Your task to perform on an android device: View the shopping cart on target. Add "usb-c" to the cart on target, then select checkout. Image 0: 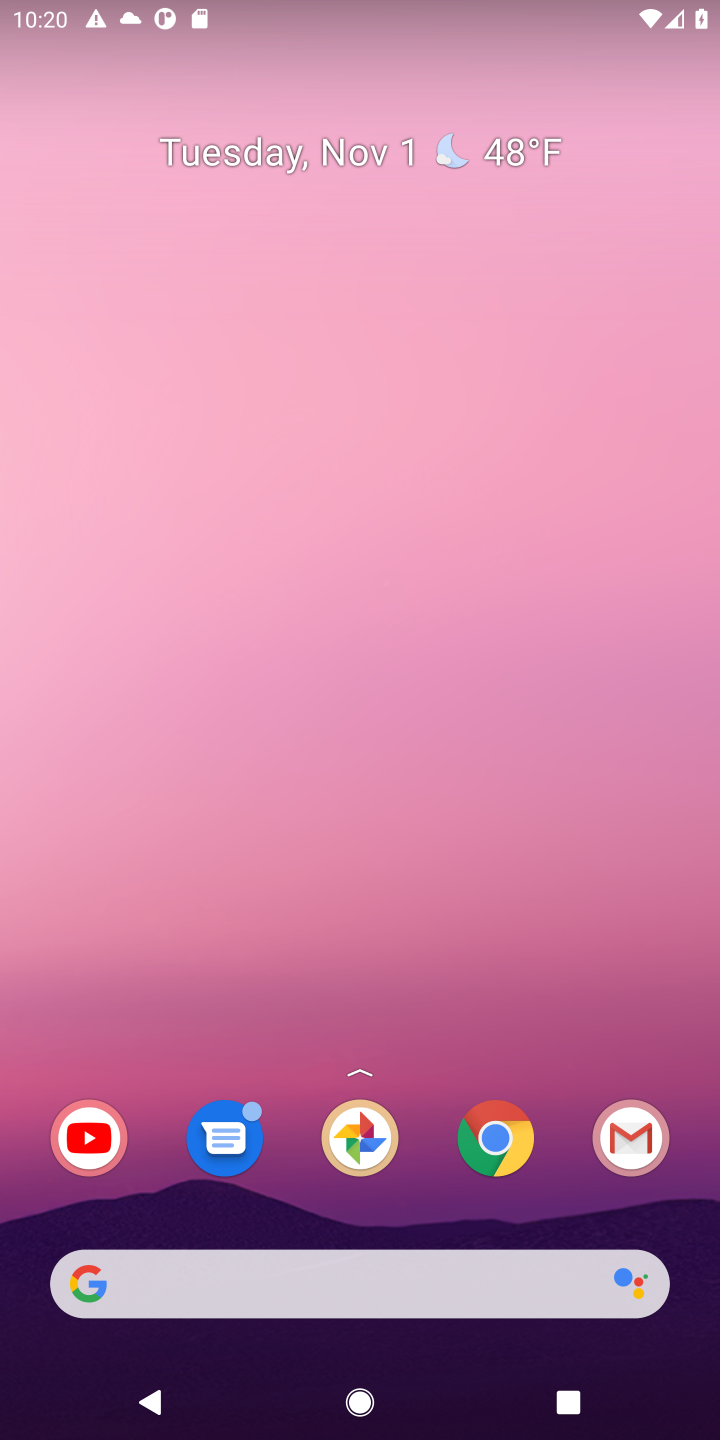
Step 0: drag from (440, 1088) to (486, 181)
Your task to perform on an android device: View the shopping cart on target. Add "usb-c" to the cart on target, then select checkout. Image 1: 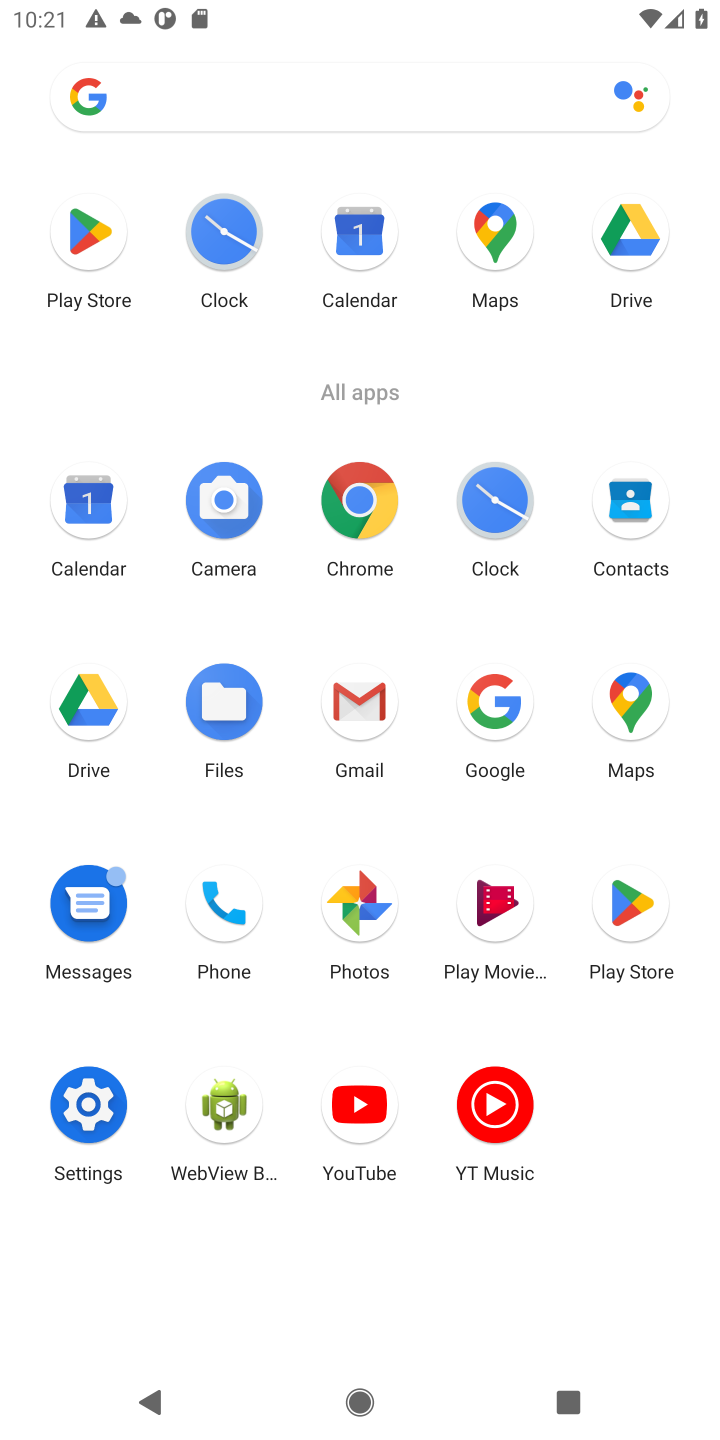
Step 1: click (354, 491)
Your task to perform on an android device: View the shopping cart on target. Add "usb-c" to the cart on target, then select checkout. Image 2: 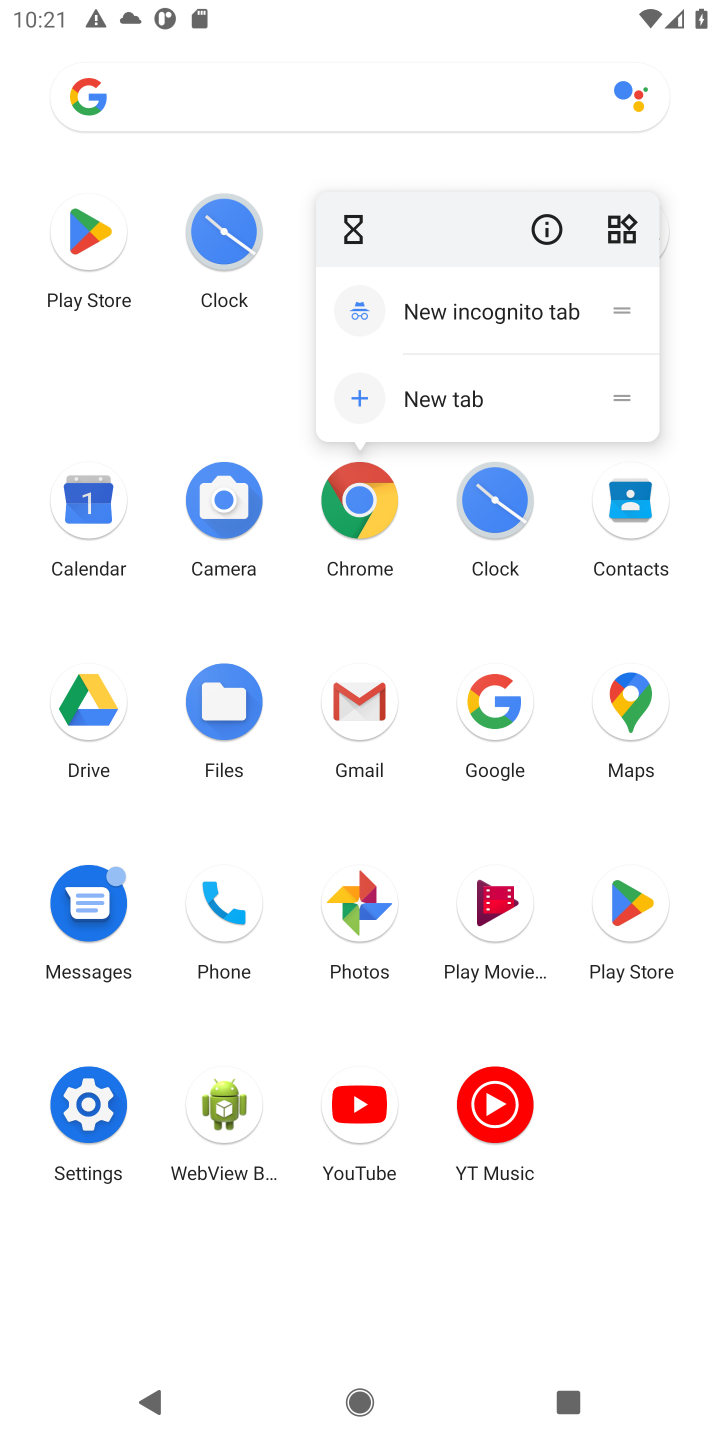
Step 2: click (352, 497)
Your task to perform on an android device: View the shopping cart on target. Add "usb-c" to the cart on target, then select checkout. Image 3: 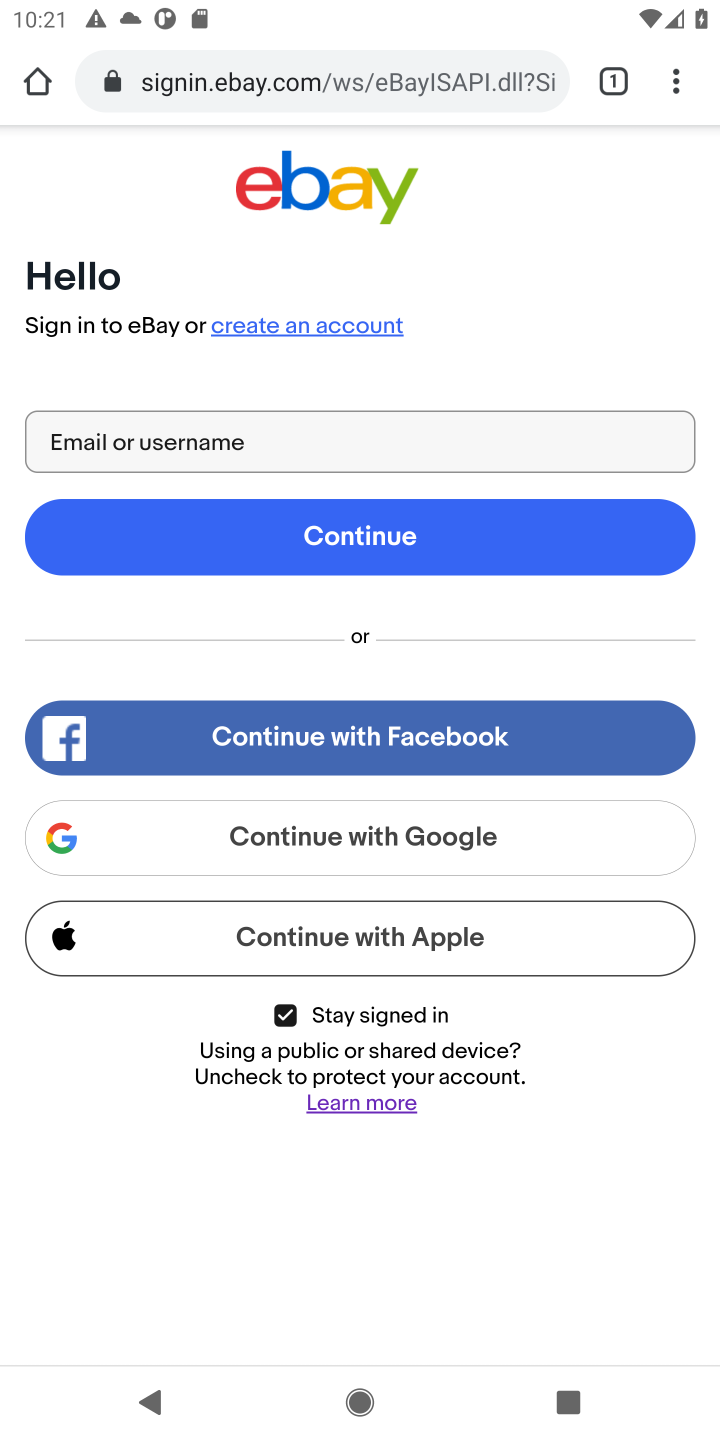
Step 3: click (183, 75)
Your task to perform on an android device: View the shopping cart on target. Add "usb-c" to the cart on target, then select checkout. Image 4: 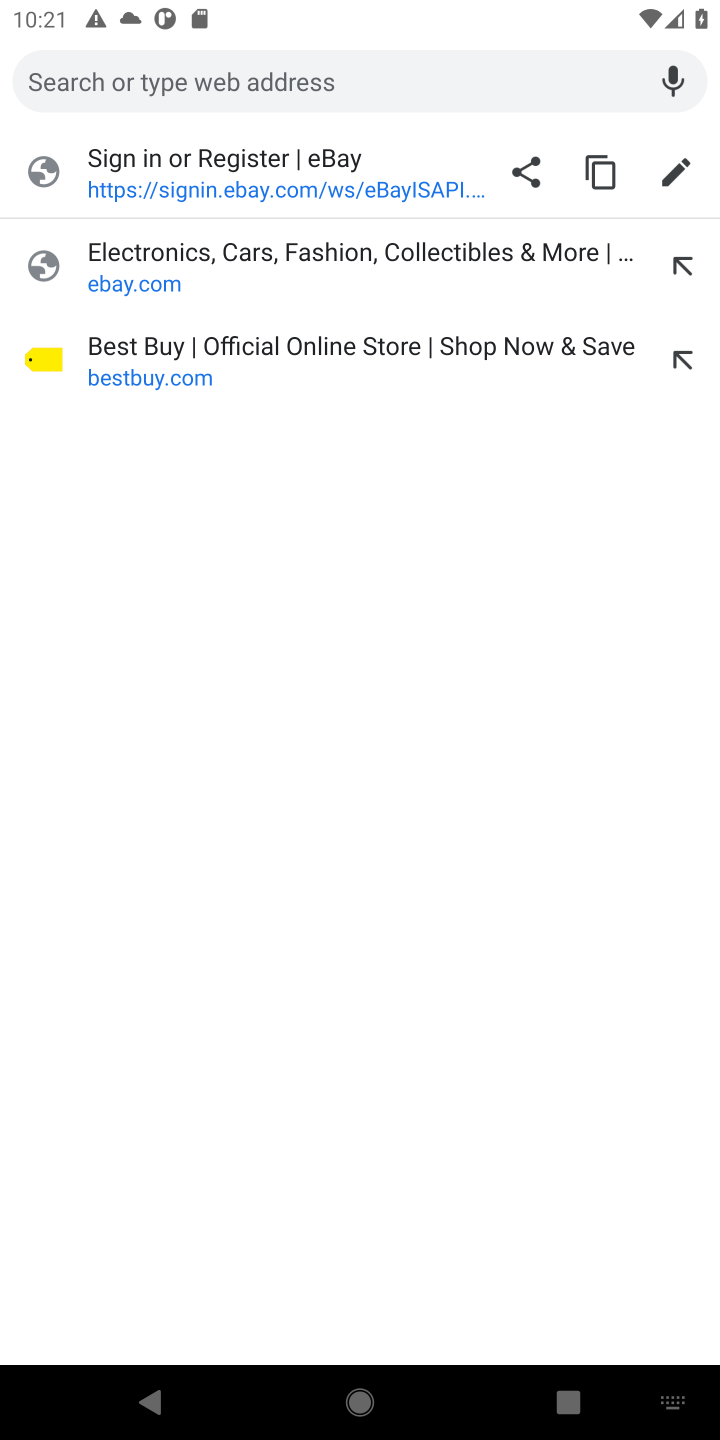
Step 4: type "target"
Your task to perform on an android device: View the shopping cart on target. Add "usb-c" to the cart on target, then select checkout. Image 5: 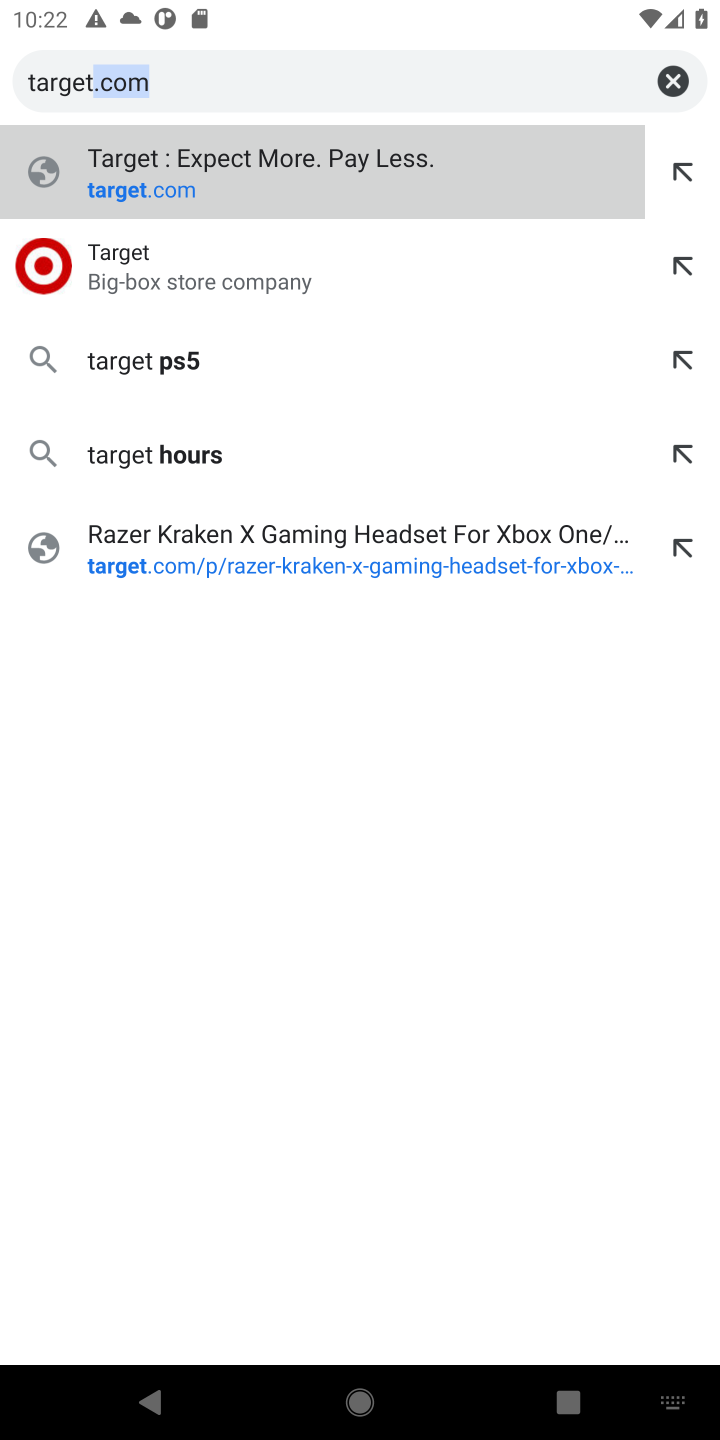
Step 5: click (220, 182)
Your task to perform on an android device: View the shopping cart on target. Add "usb-c" to the cart on target, then select checkout. Image 6: 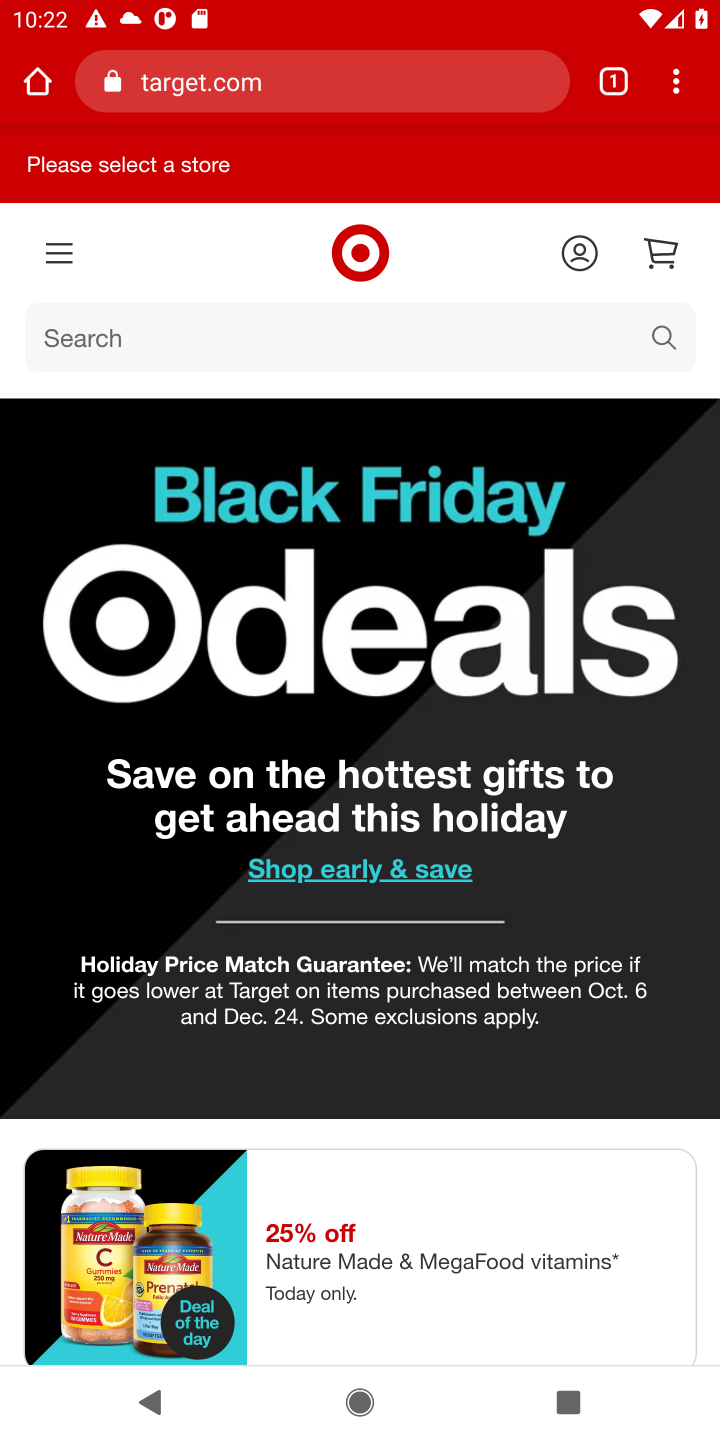
Step 6: click (92, 324)
Your task to perform on an android device: View the shopping cart on target. Add "usb-c" to the cart on target, then select checkout. Image 7: 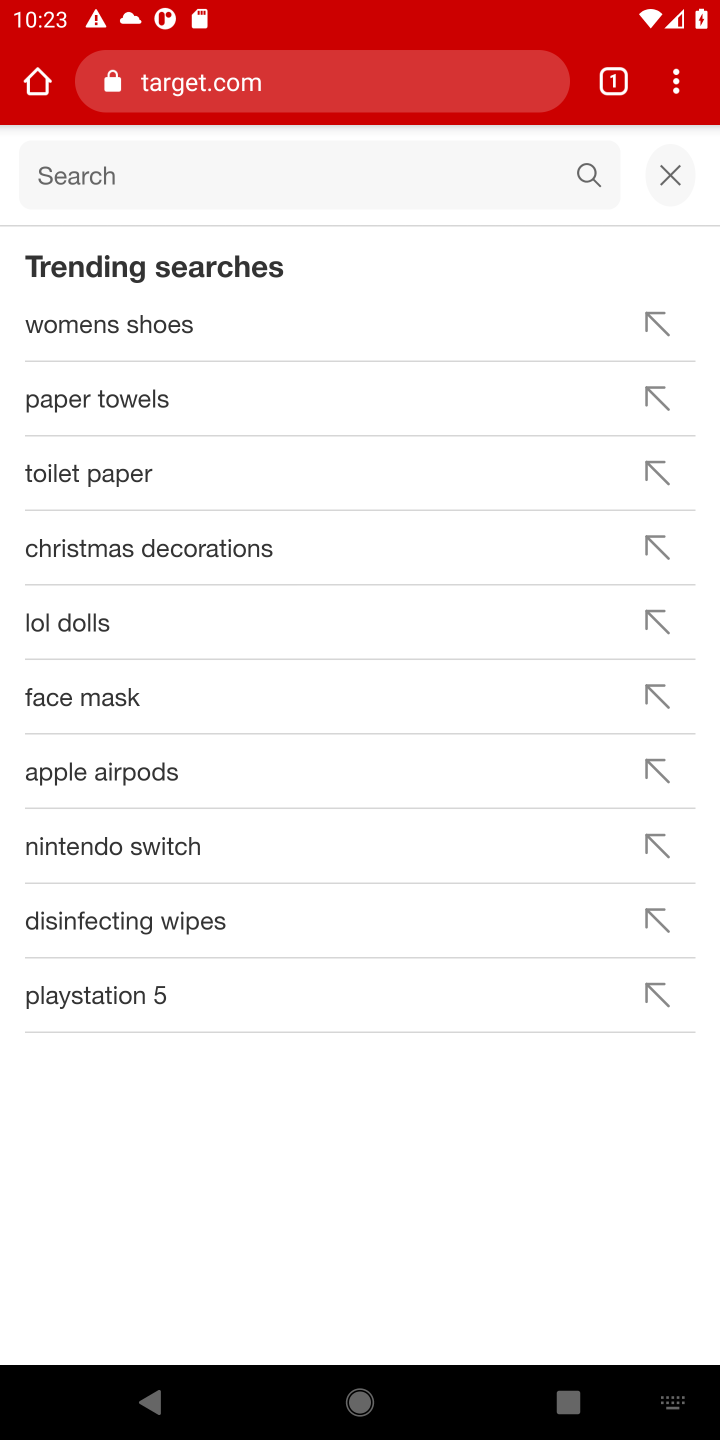
Step 7: type "usb-c"
Your task to perform on an android device: View the shopping cart on target. Add "usb-c" to the cart on target, then select checkout. Image 8: 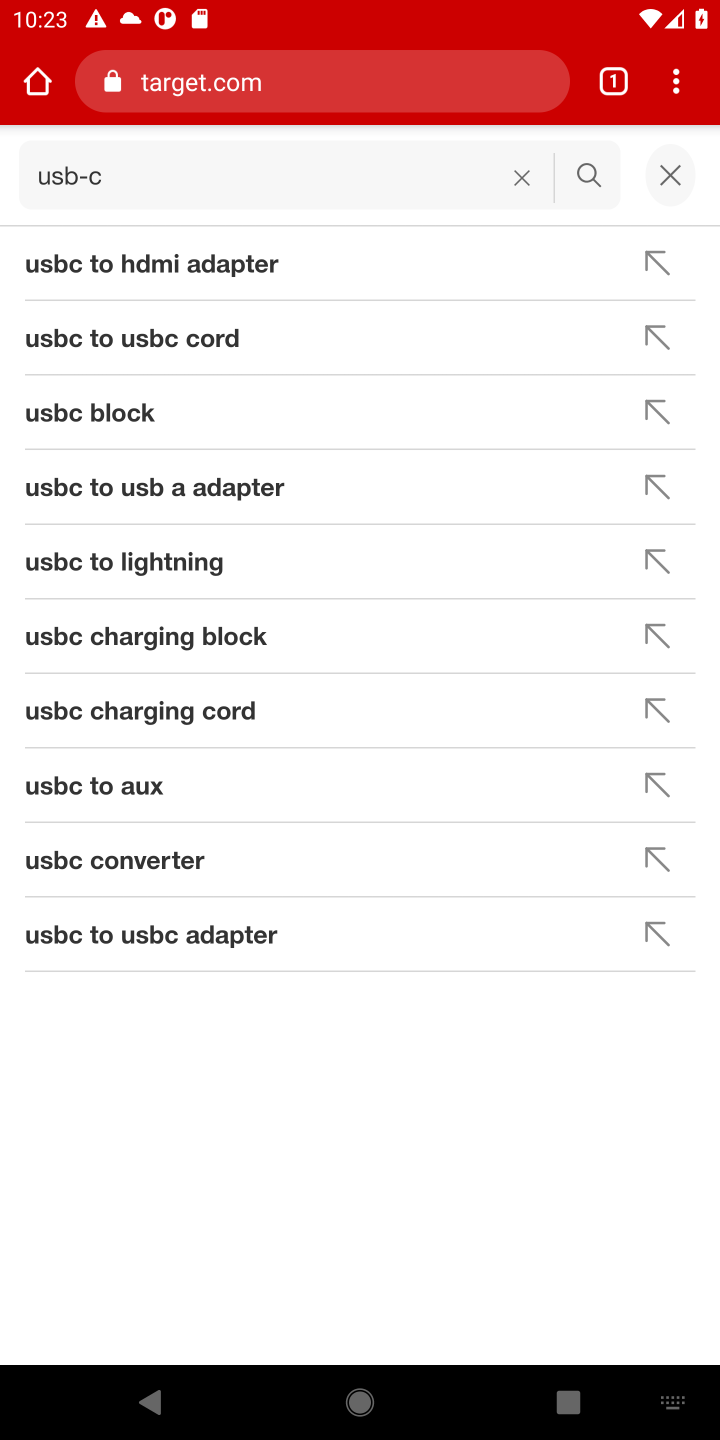
Step 8: click (151, 879)
Your task to perform on an android device: View the shopping cart on target. Add "usb-c" to the cart on target, then select checkout. Image 9: 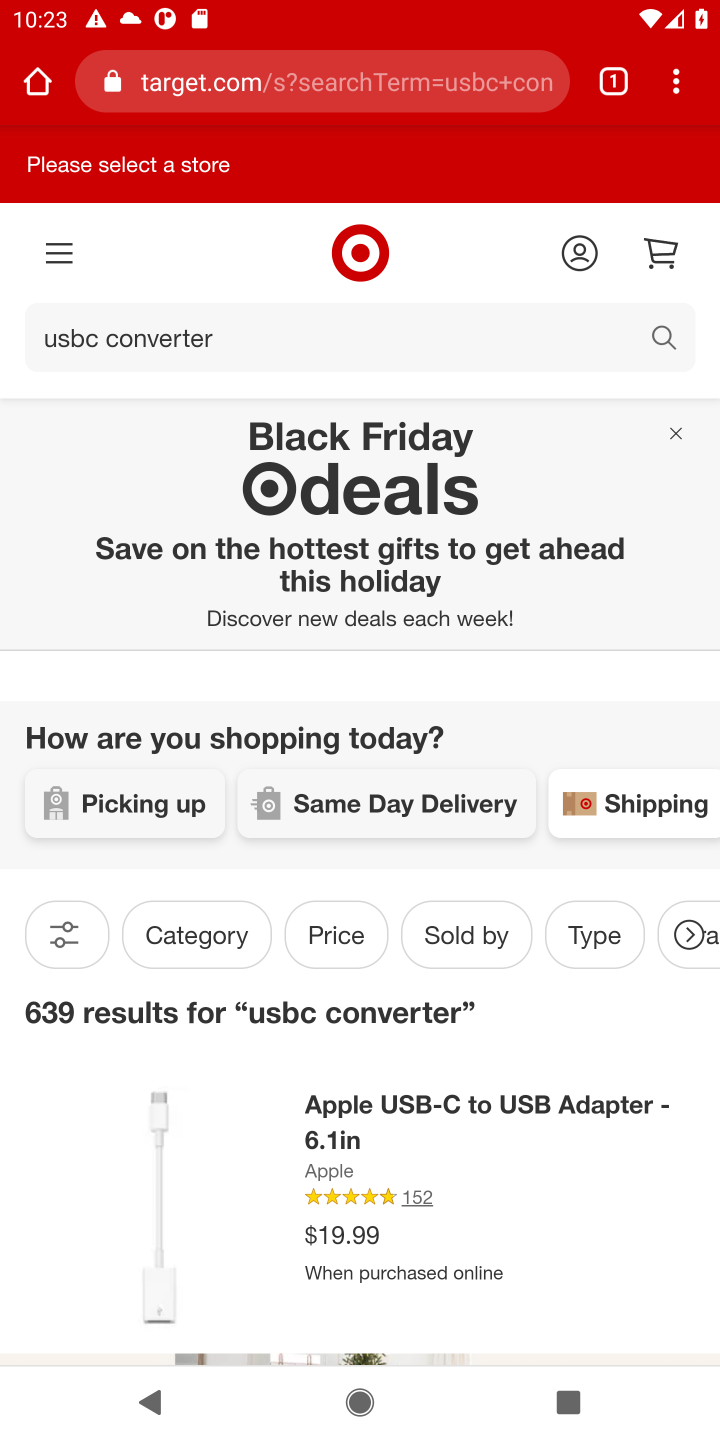
Step 9: drag from (300, 1075) to (409, 388)
Your task to perform on an android device: View the shopping cart on target. Add "usb-c" to the cart on target, then select checkout. Image 10: 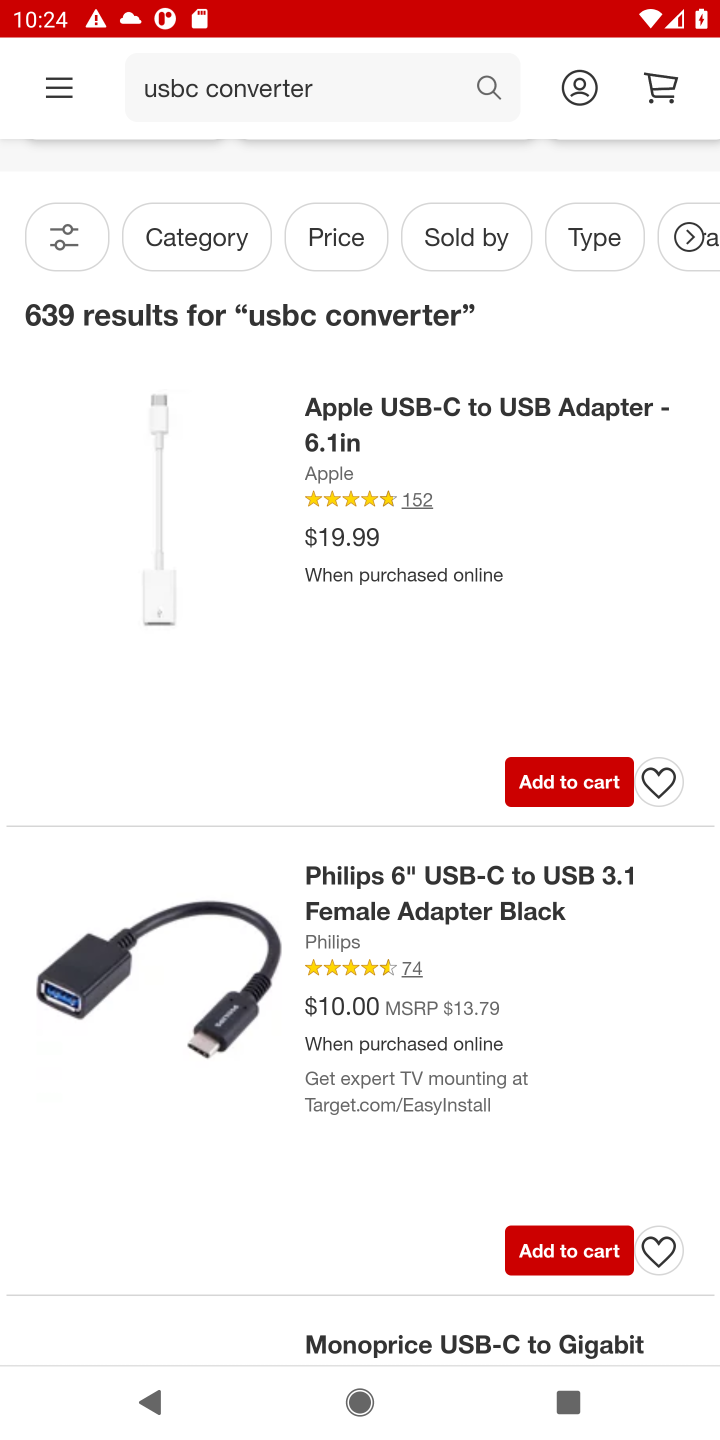
Step 10: click (352, 917)
Your task to perform on an android device: View the shopping cart on target. Add "usb-c" to the cart on target, then select checkout. Image 11: 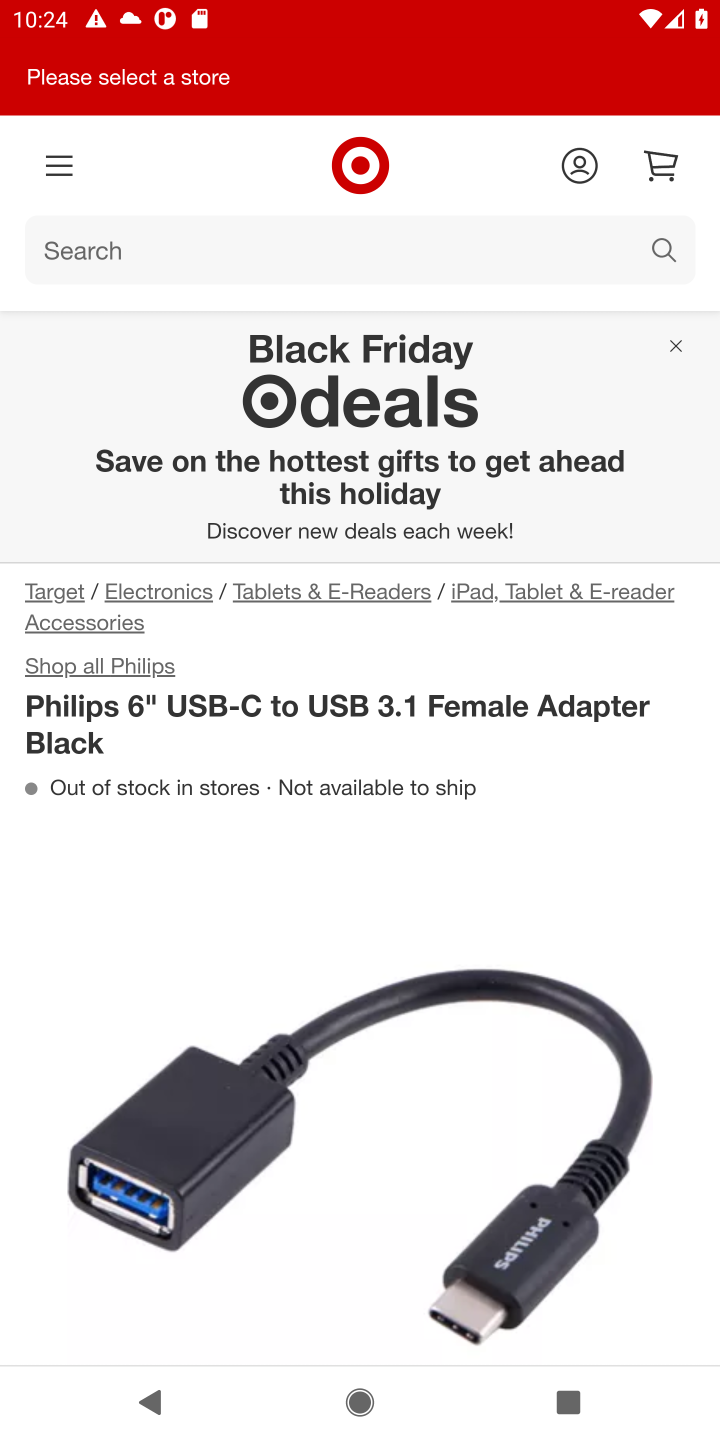
Step 11: drag from (347, 1178) to (358, 289)
Your task to perform on an android device: View the shopping cart on target. Add "usb-c" to the cart on target, then select checkout. Image 12: 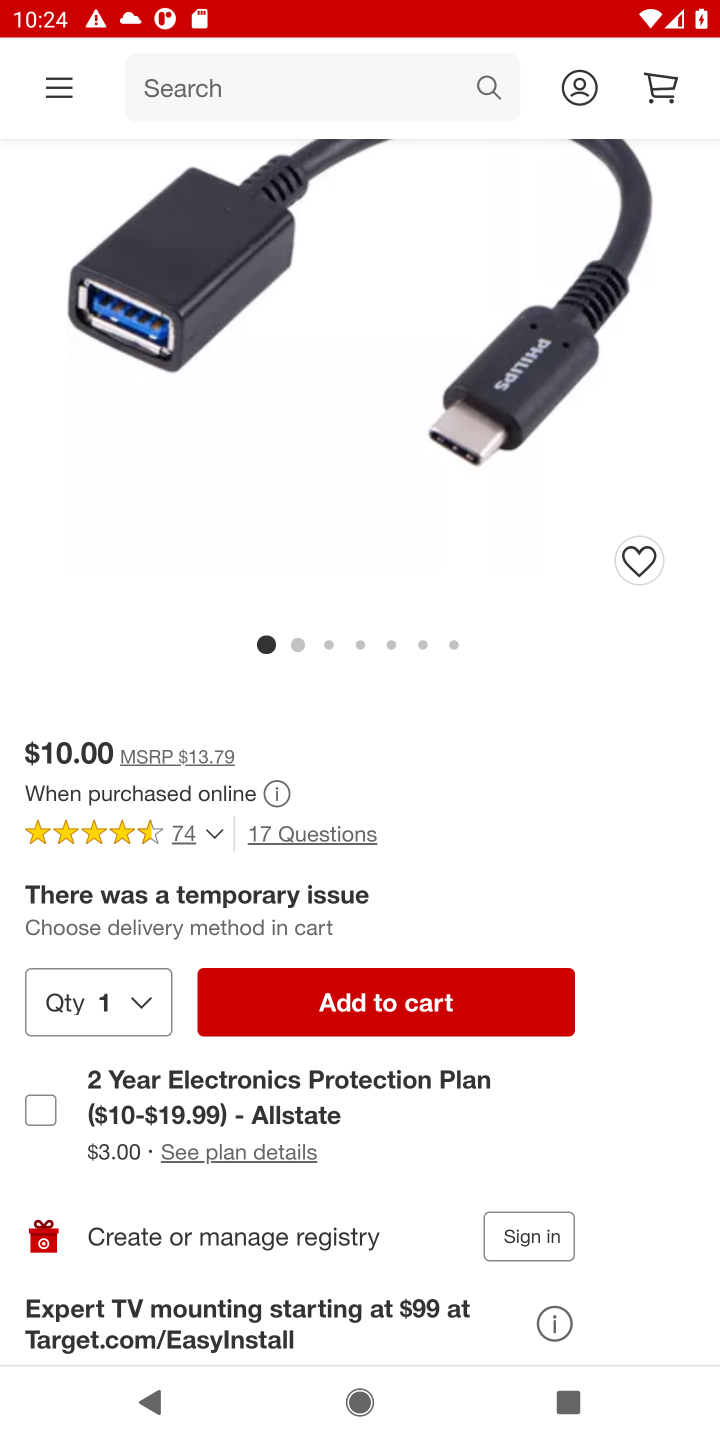
Step 12: click (400, 1002)
Your task to perform on an android device: View the shopping cart on target. Add "usb-c" to the cart on target, then select checkout. Image 13: 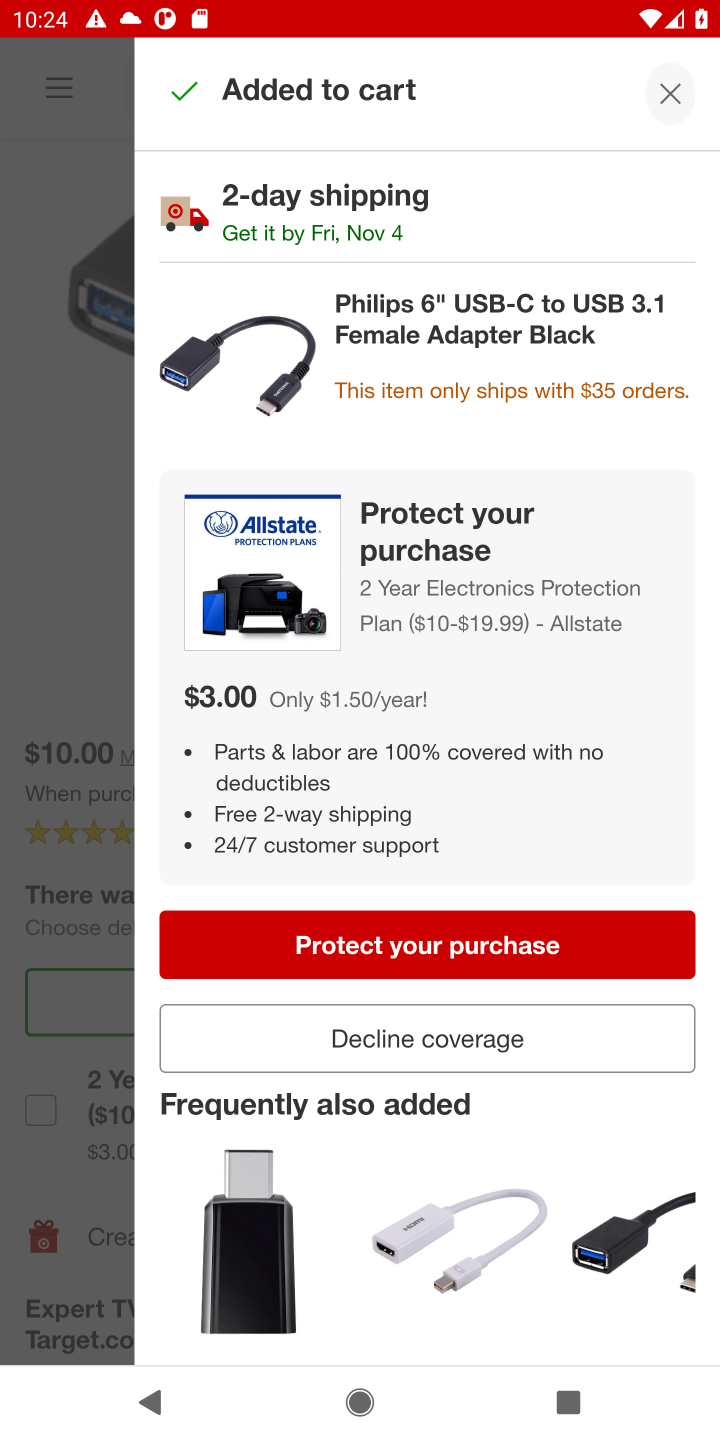
Step 13: click (660, 96)
Your task to perform on an android device: View the shopping cart on target. Add "usb-c" to the cart on target, then select checkout. Image 14: 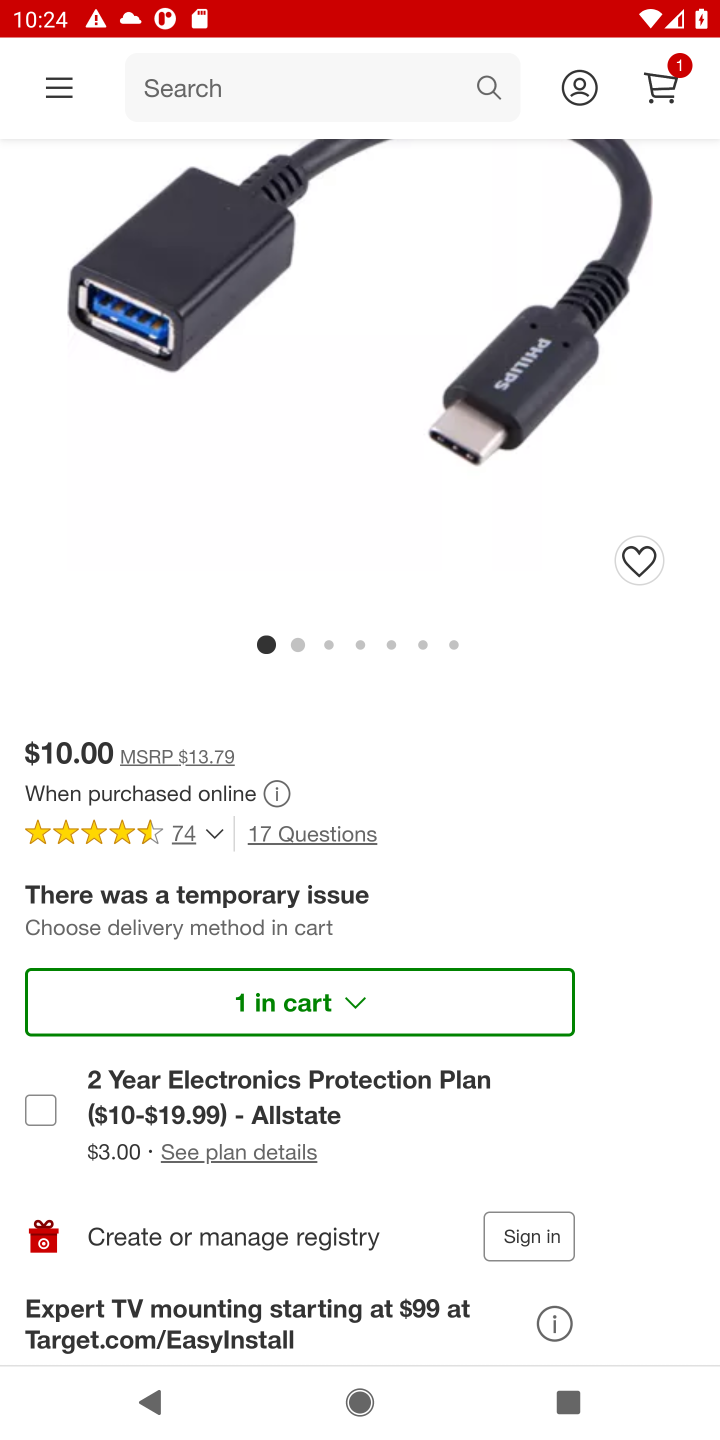
Step 14: click (668, 80)
Your task to perform on an android device: View the shopping cart on target. Add "usb-c" to the cart on target, then select checkout. Image 15: 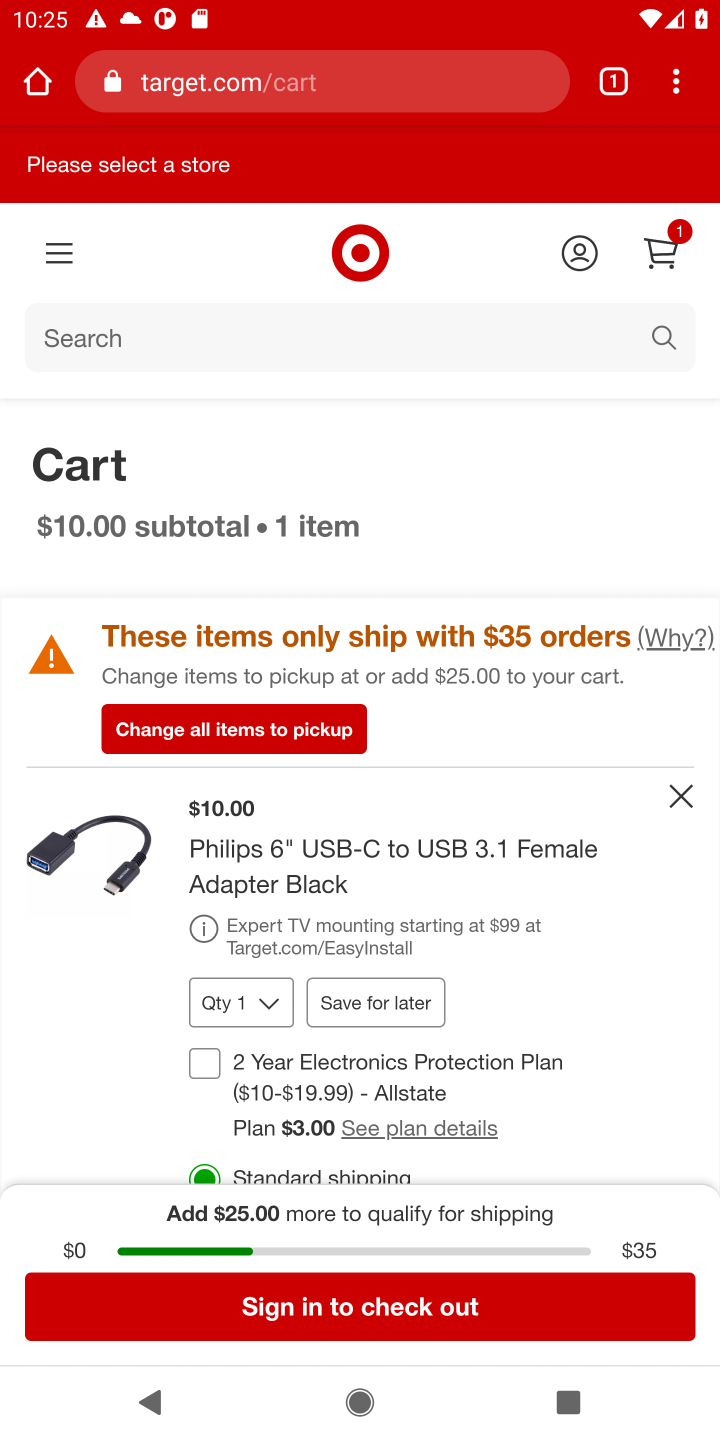
Step 15: drag from (464, 1042) to (471, 299)
Your task to perform on an android device: View the shopping cart on target. Add "usb-c" to the cart on target, then select checkout. Image 16: 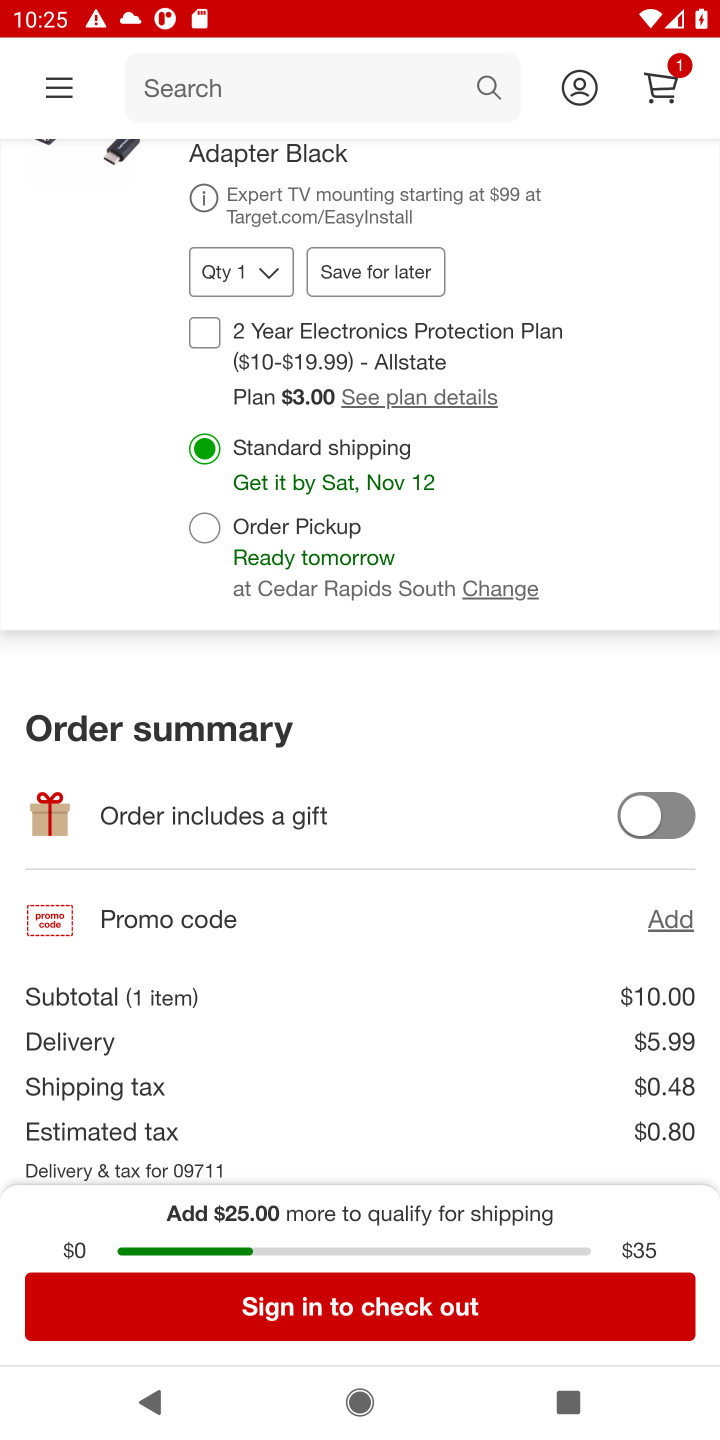
Step 16: click (322, 1298)
Your task to perform on an android device: View the shopping cart on target. Add "usb-c" to the cart on target, then select checkout. Image 17: 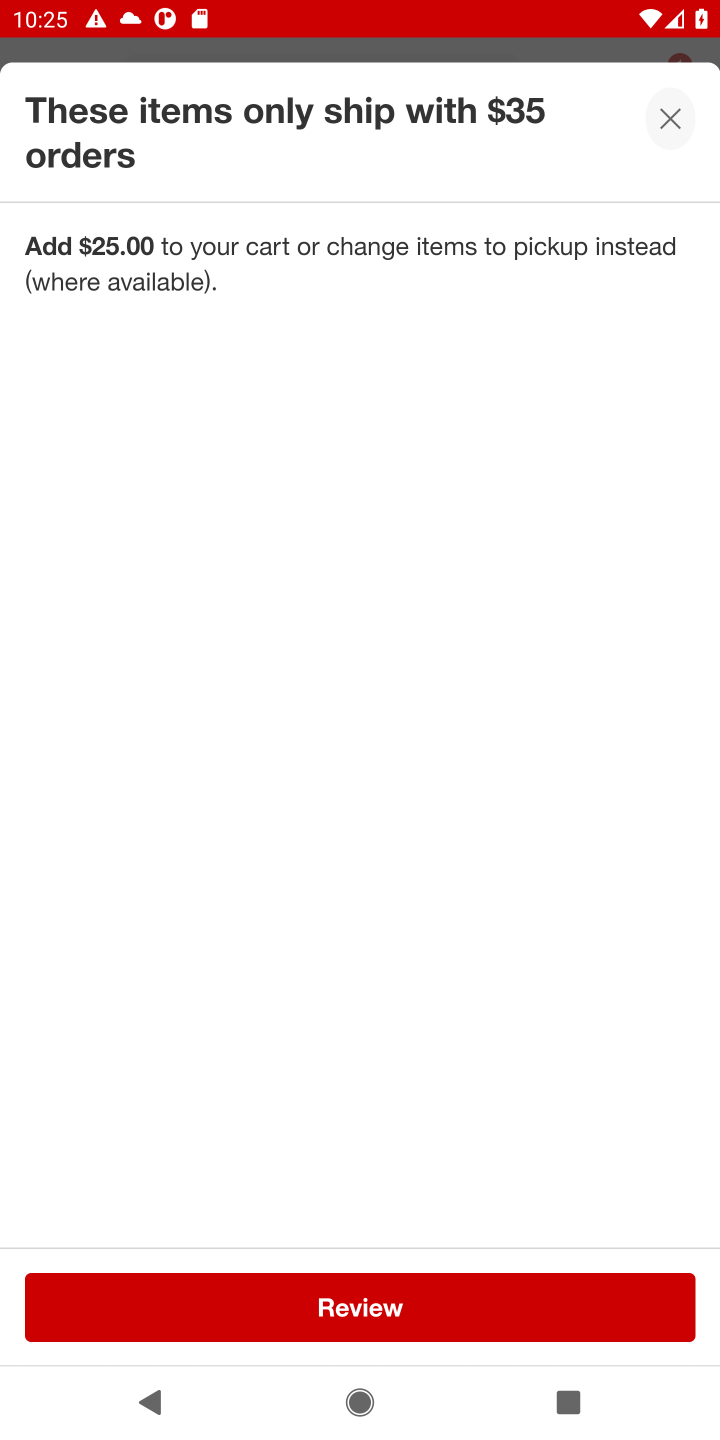
Step 17: click (668, 115)
Your task to perform on an android device: View the shopping cart on target. Add "usb-c" to the cart on target, then select checkout. Image 18: 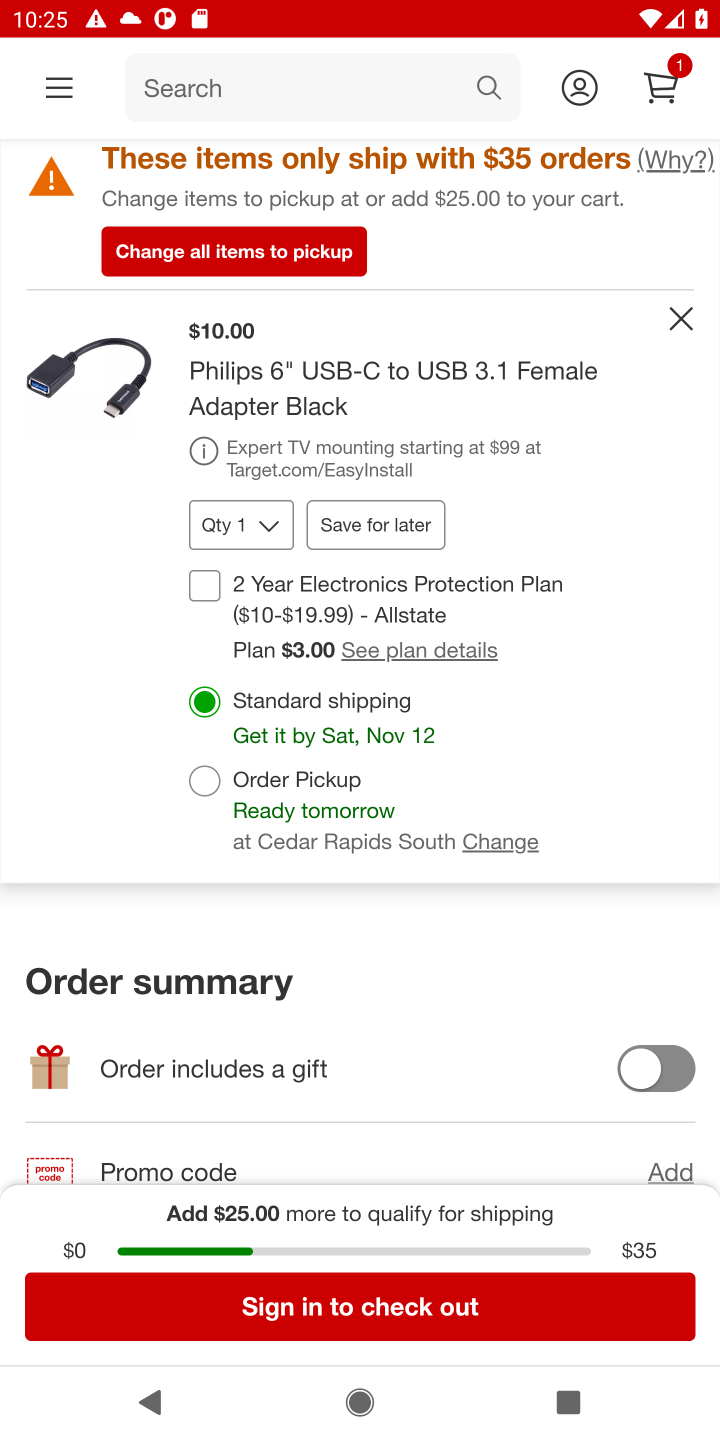
Step 18: task complete